Your task to perform on an android device: turn smart compose on in the gmail app Image 0: 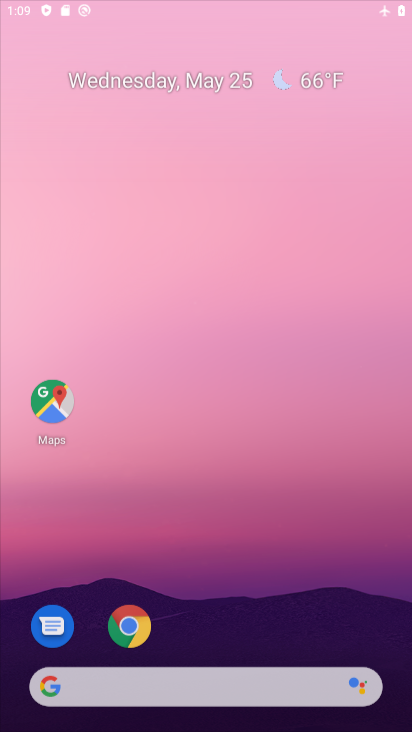
Step 0: press home button
Your task to perform on an android device: turn smart compose on in the gmail app Image 1: 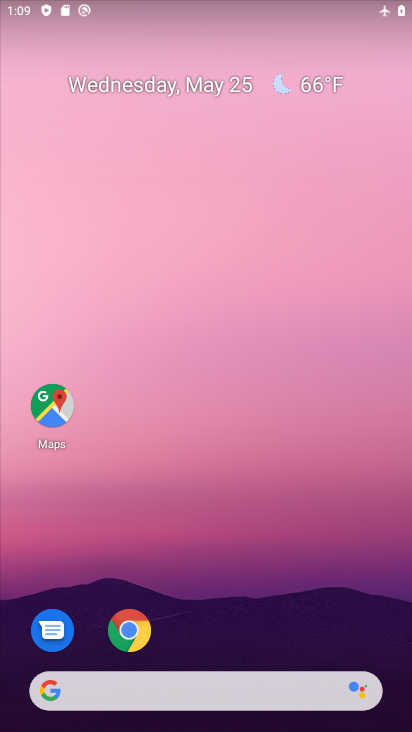
Step 1: drag from (200, 644) to (245, 188)
Your task to perform on an android device: turn smart compose on in the gmail app Image 2: 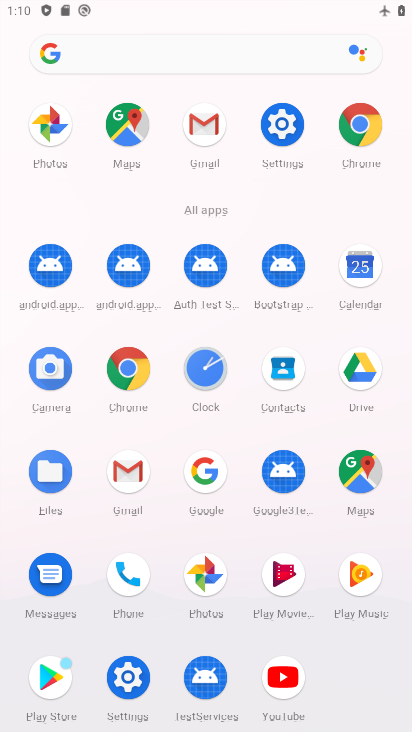
Step 2: click (128, 466)
Your task to perform on an android device: turn smart compose on in the gmail app Image 3: 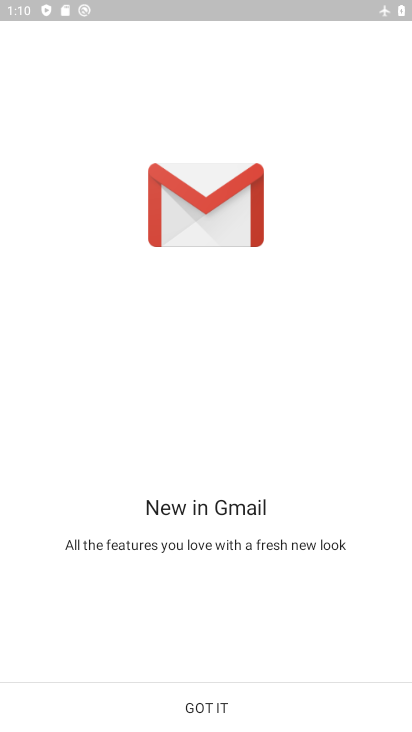
Step 3: click (219, 705)
Your task to perform on an android device: turn smart compose on in the gmail app Image 4: 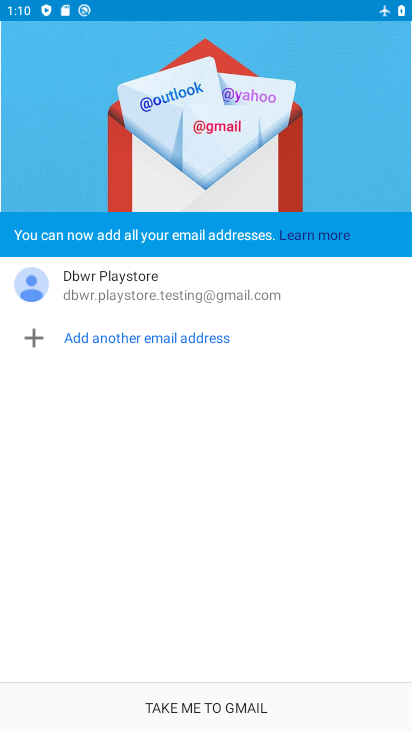
Step 4: click (202, 709)
Your task to perform on an android device: turn smart compose on in the gmail app Image 5: 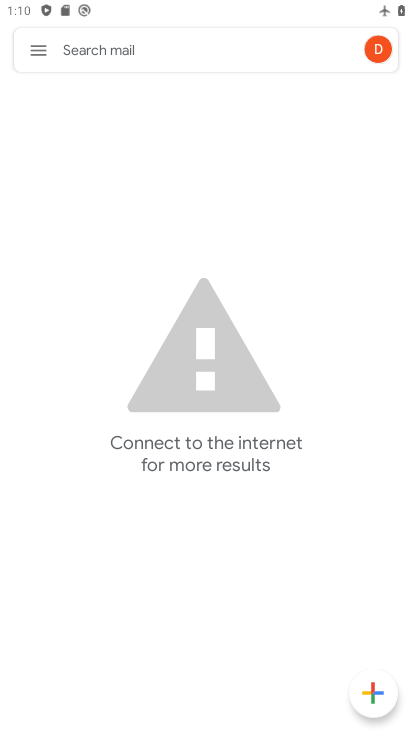
Step 5: click (38, 36)
Your task to perform on an android device: turn smart compose on in the gmail app Image 6: 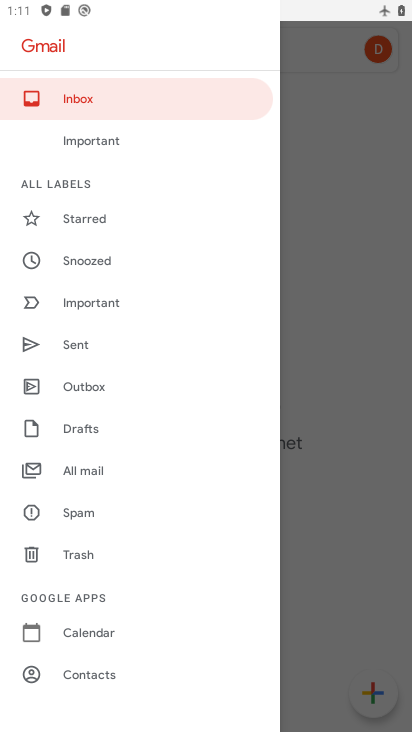
Step 6: drag from (123, 645) to (141, 150)
Your task to perform on an android device: turn smart compose on in the gmail app Image 7: 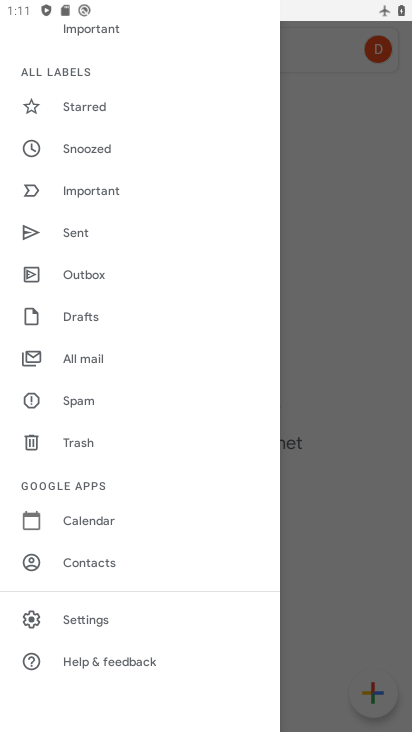
Step 7: click (109, 611)
Your task to perform on an android device: turn smart compose on in the gmail app Image 8: 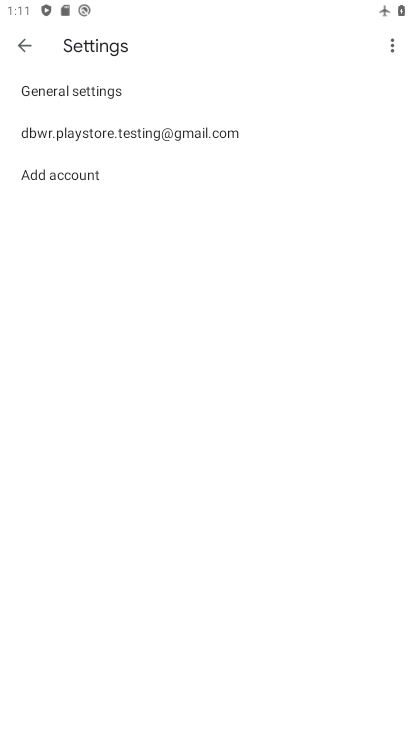
Step 8: click (153, 128)
Your task to perform on an android device: turn smart compose on in the gmail app Image 9: 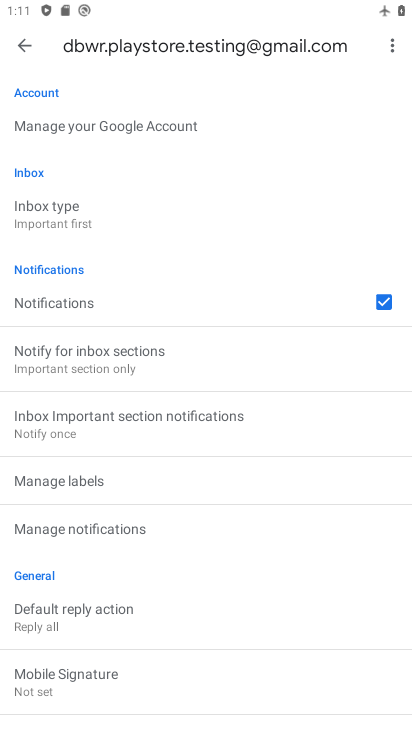
Step 9: task complete